Your task to perform on an android device: turn off wifi Image 0: 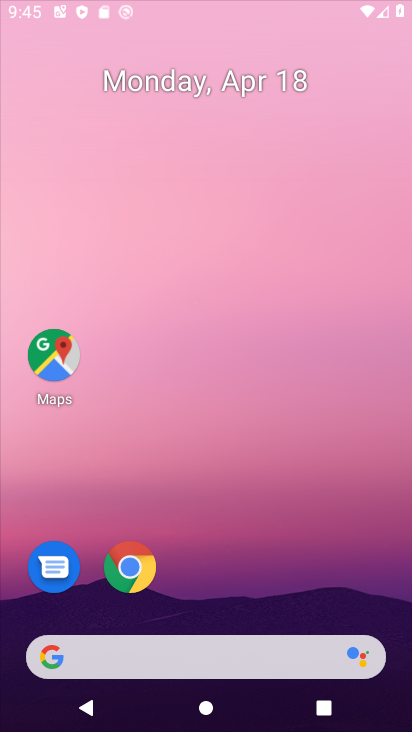
Step 0: click (374, 186)
Your task to perform on an android device: turn off wifi Image 1: 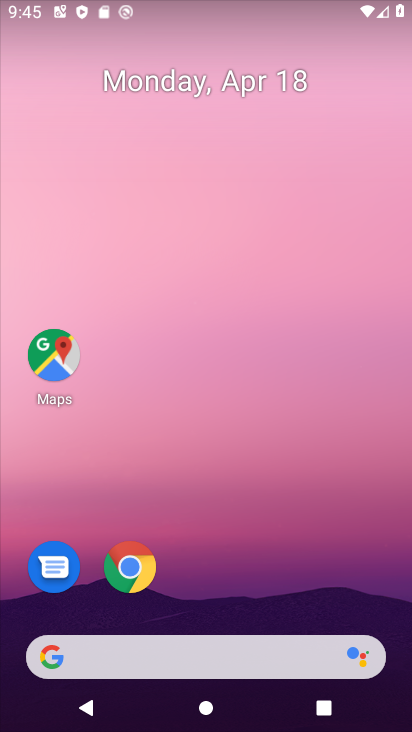
Step 1: drag from (350, 507) to (362, 101)
Your task to perform on an android device: turn off wifi Image 2: 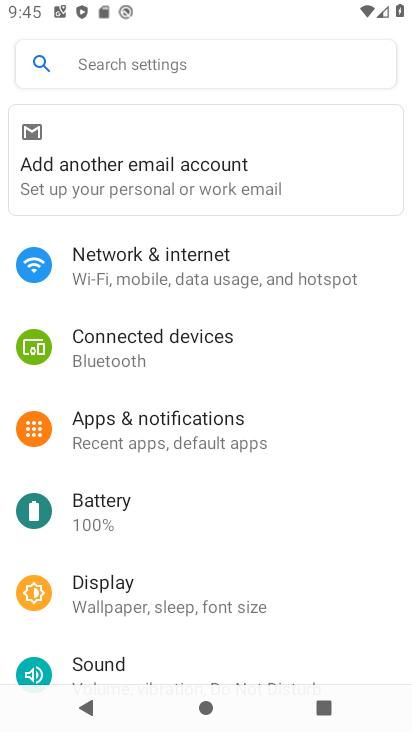
Step 2: click (231, 245)
Your task to perform on an android device: turn off wifi Image 3: 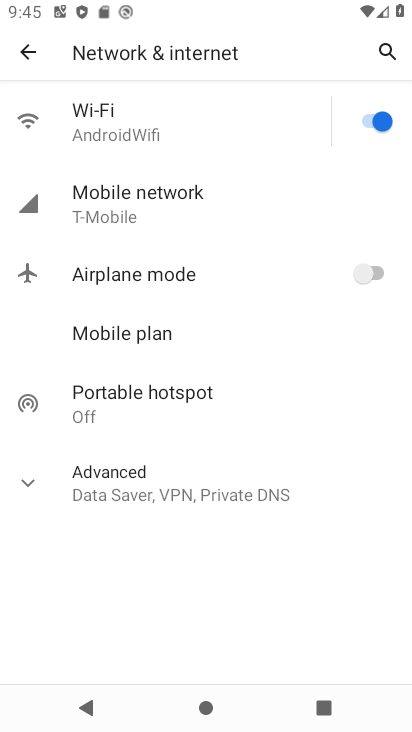
Step 3: click (363, 114)
Your task to perform on an android device: turn off wifi Image 4: 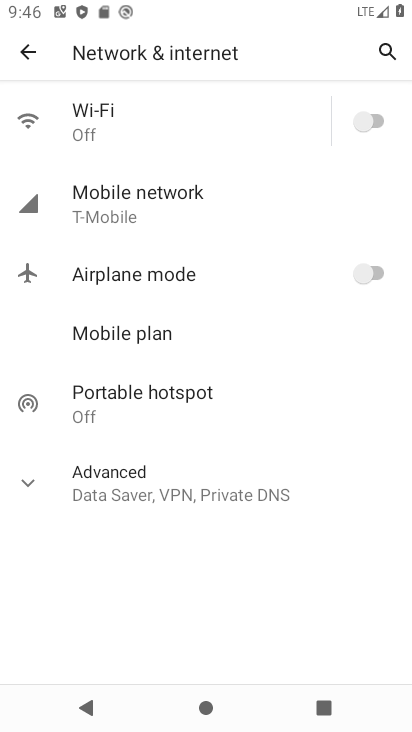
Step 4: task complete